Your task to perform on an android device: Open CNN.com Image 0: 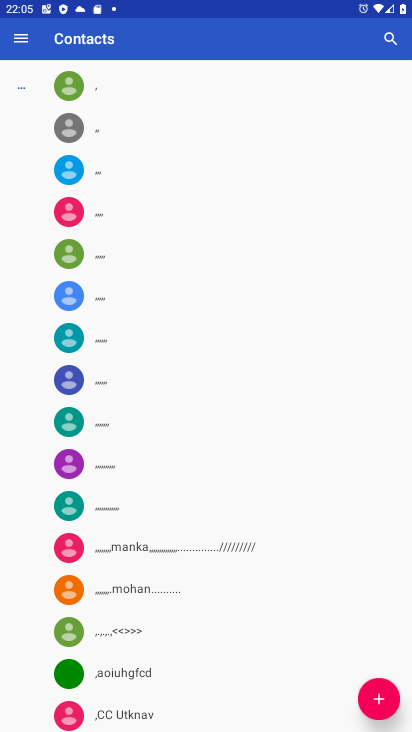
Step 0: press home button
Your task to perform on an android device: Open CNN.com Image 1: 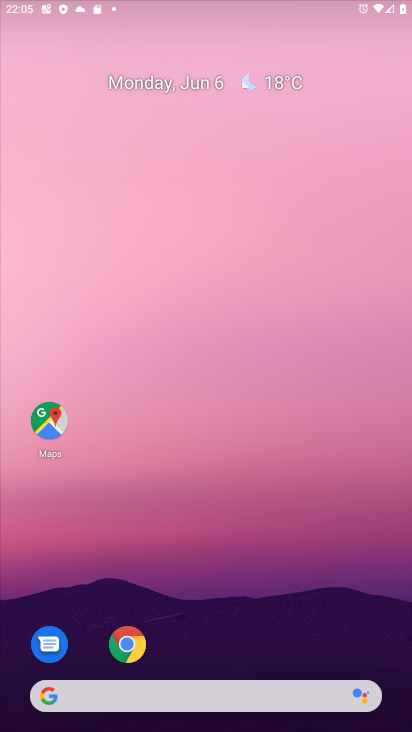
Step 1: drag from (360, 636) to (305, 155)
Your task to perform on an android device: Open CNN.com Image 2: 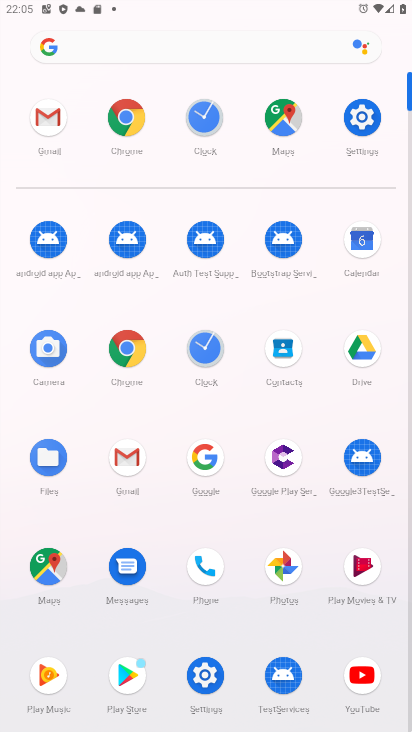
Step 2: click (113, 359)
Your task to perform on an android device: Open CNN.com Image 3: 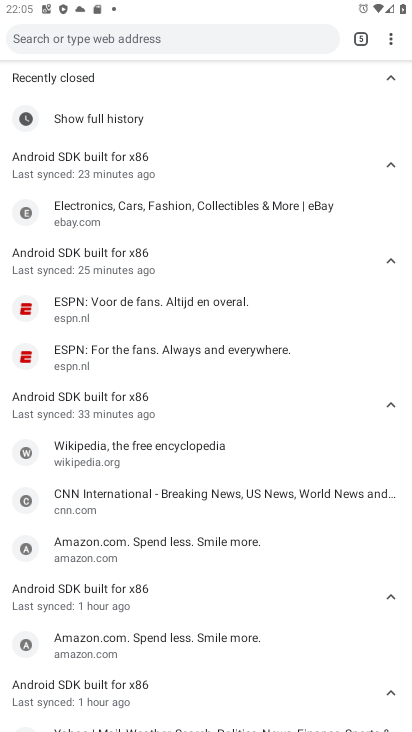
Step 3: click (220, 38)
Your task to perform on an android device: Open CNN.com Image 4: 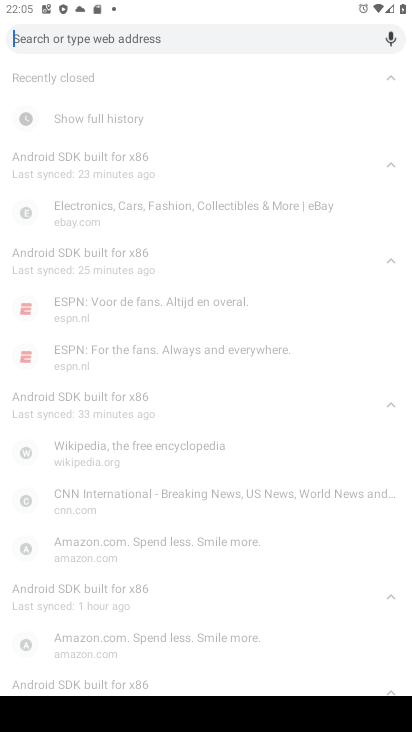
Step 4: type "cnn.com"
Your task to perform on an android device: Open CNN.com Image 5: 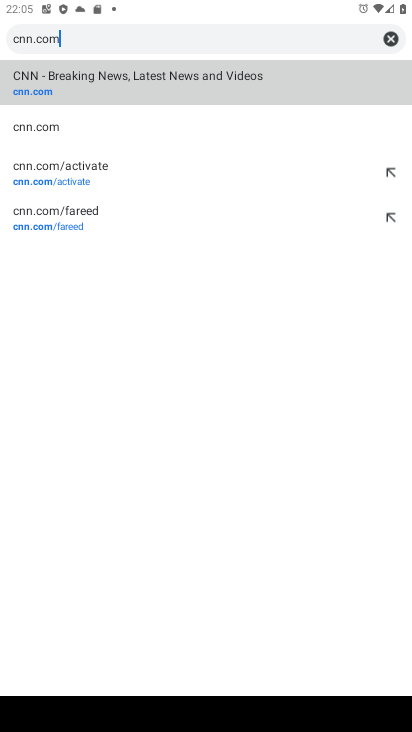
Step 5: click (126, 87)
Your task to perform on an android device: Open CNN.com Image 6: 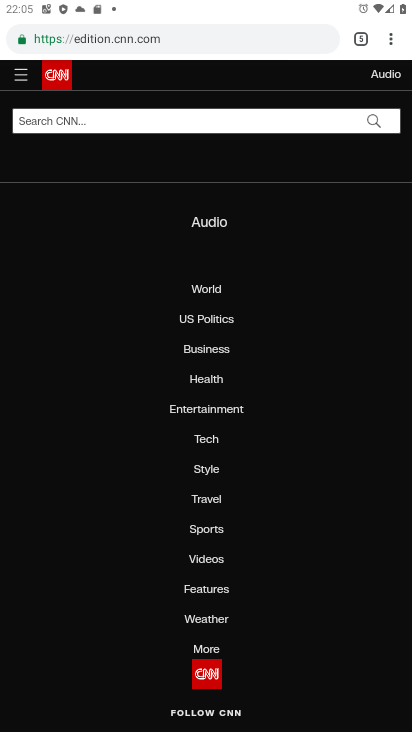
Step 6: task complete